Your task to perform on an android device: Search for Mexican restaurants on Maps Image 0: 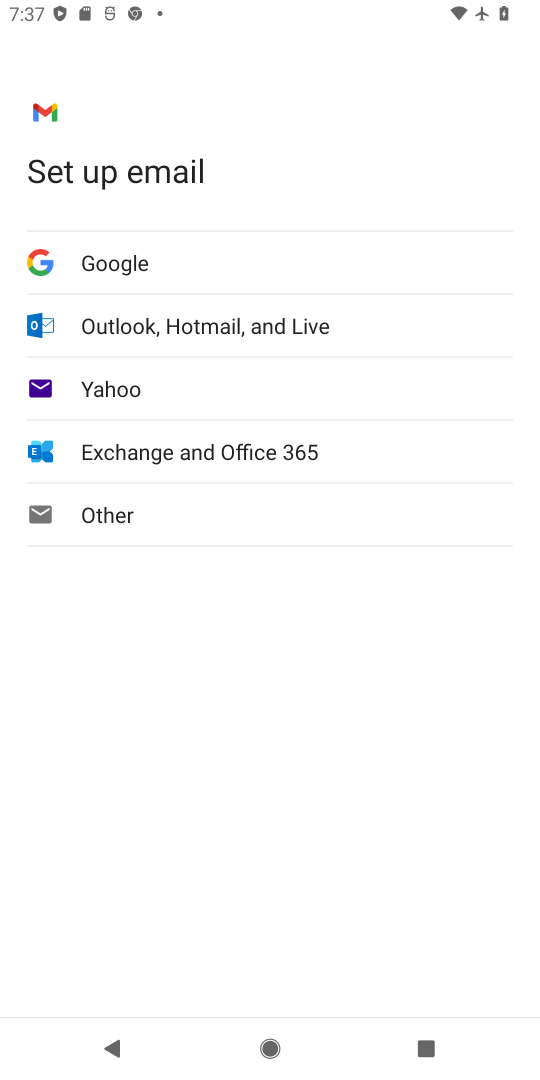
Step 0: press home button
Your task to perform on an android device: Search for Mexican restaurants on Maps Image 1: 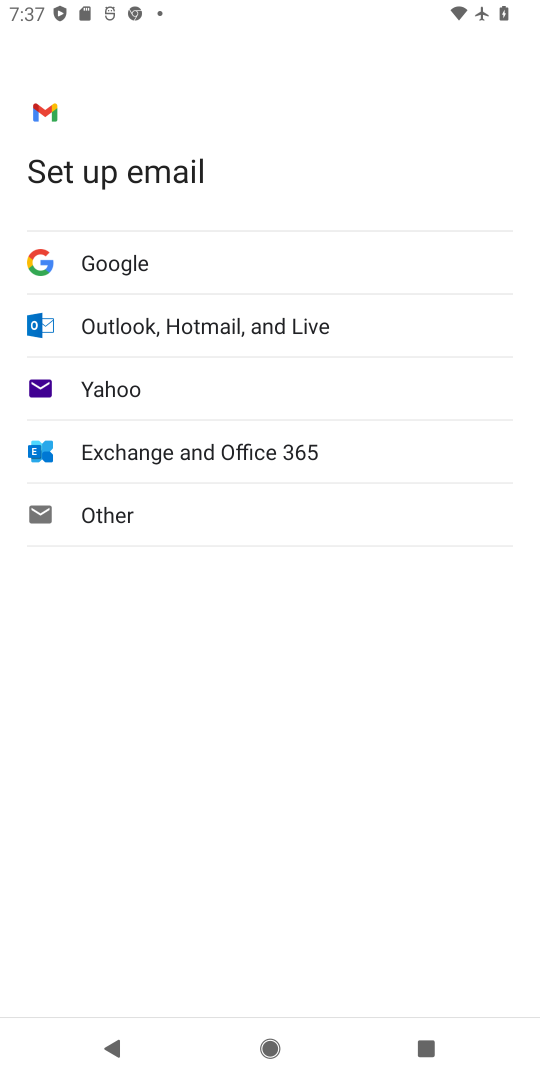
Step 1: press home button
Your task to perform on an android device: Search for Mexican restaurants on Maps Image 2: 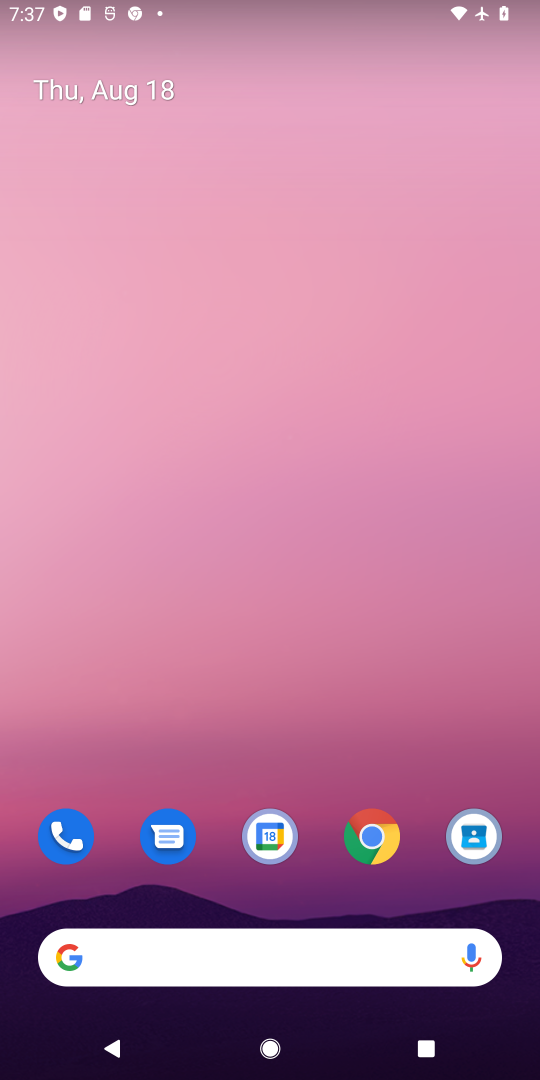
Step 2: drag from (323, 756) to (207, 39)
Your task to perform on an android device: Search for Mexican restaurants on Maps Image 3: 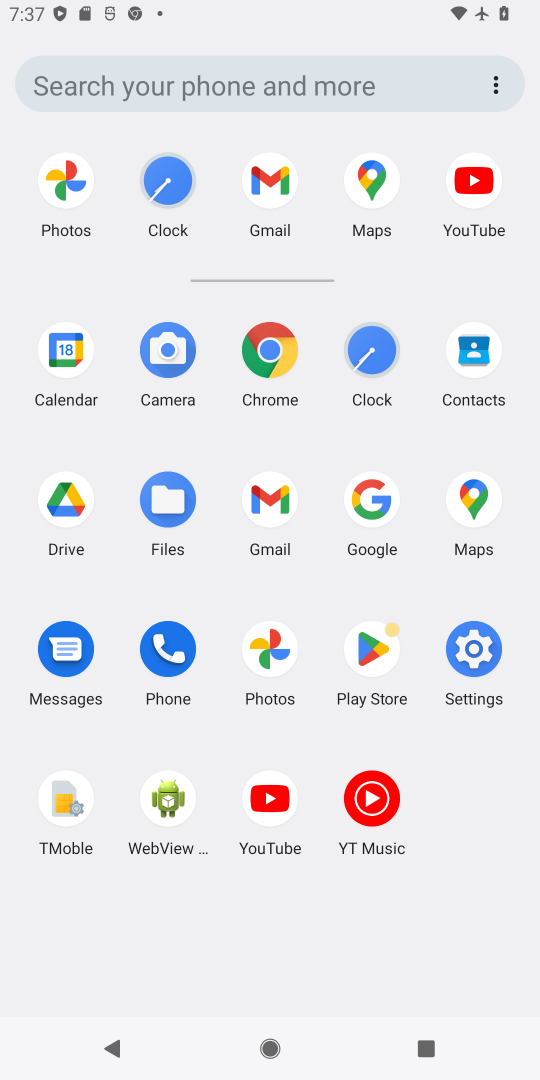
Step 3: click (474, 510)
Your task to perform on an android device: Search for Mexican restaurants on Maps Image 4: 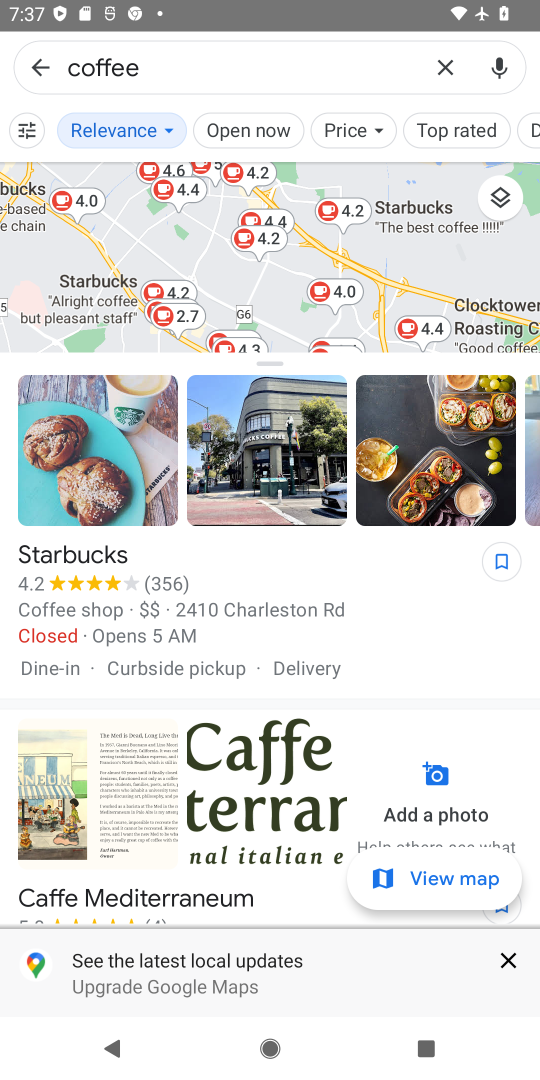
Step 4: click (456, 71)
Your task to perform on an android device: Search for Mexican restaurants on Maps Image 5: 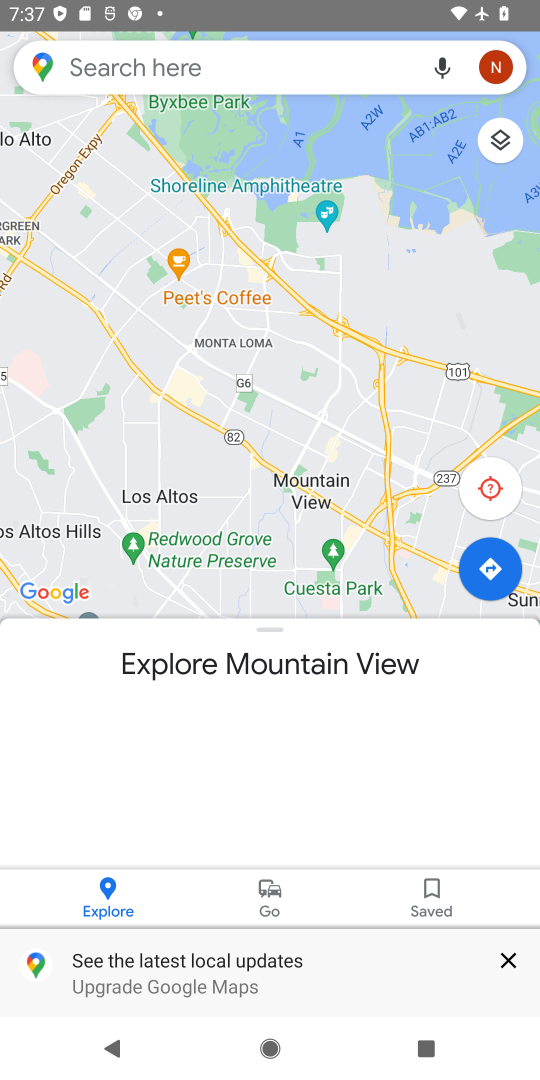
Step 5: click (266, 59)
Your task to perform on an android device: Search for Mexican restaurants on Maps Image 6: 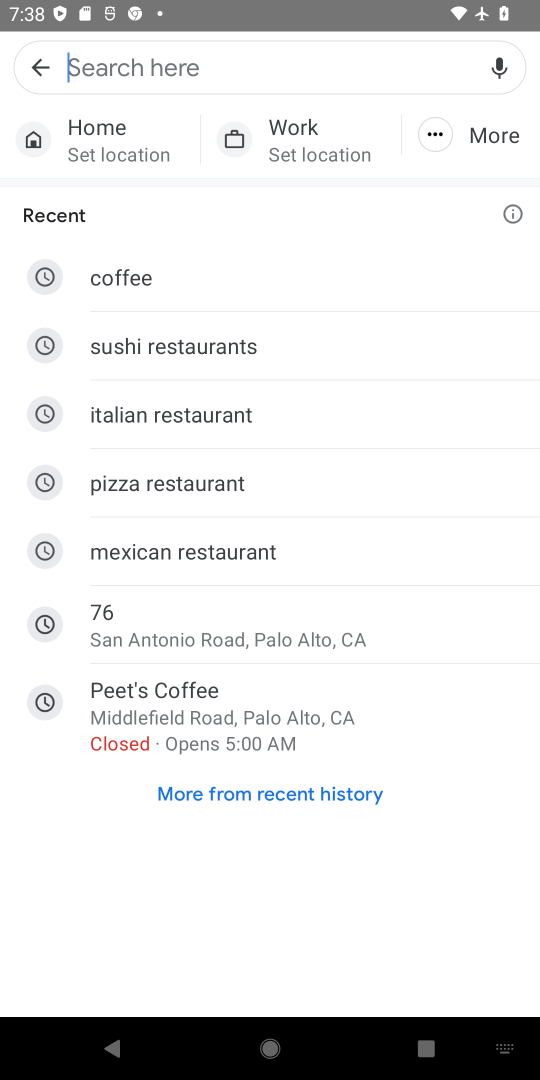
Step 6: type "Mexican restaurants"
Your task to perform on an android device: Search for Mexican restaurants on Maps Image 7: 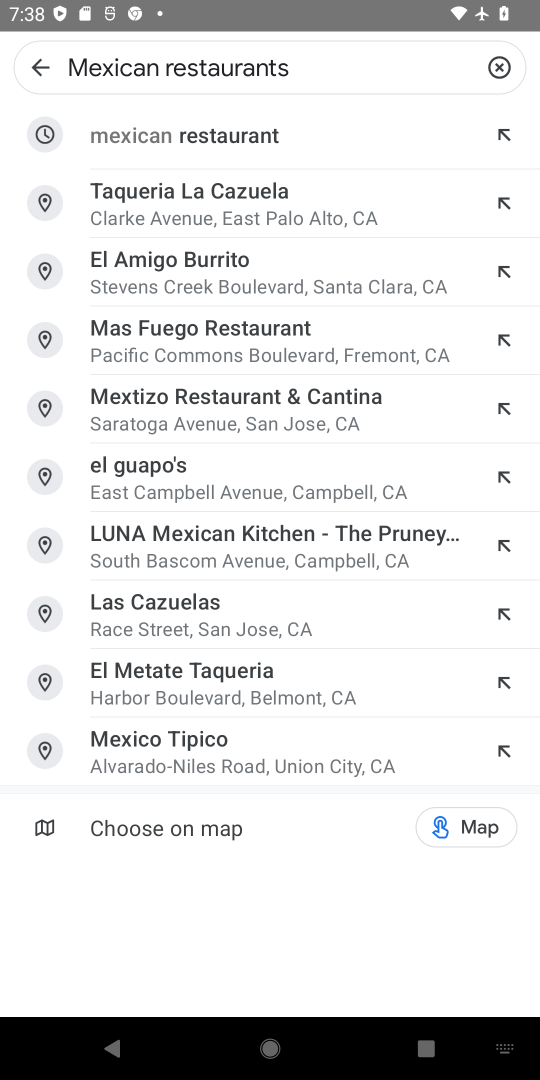
Step 7: press enter
Your task to perform on an android device: Search for Mexican restaurants on Maps Image 8: 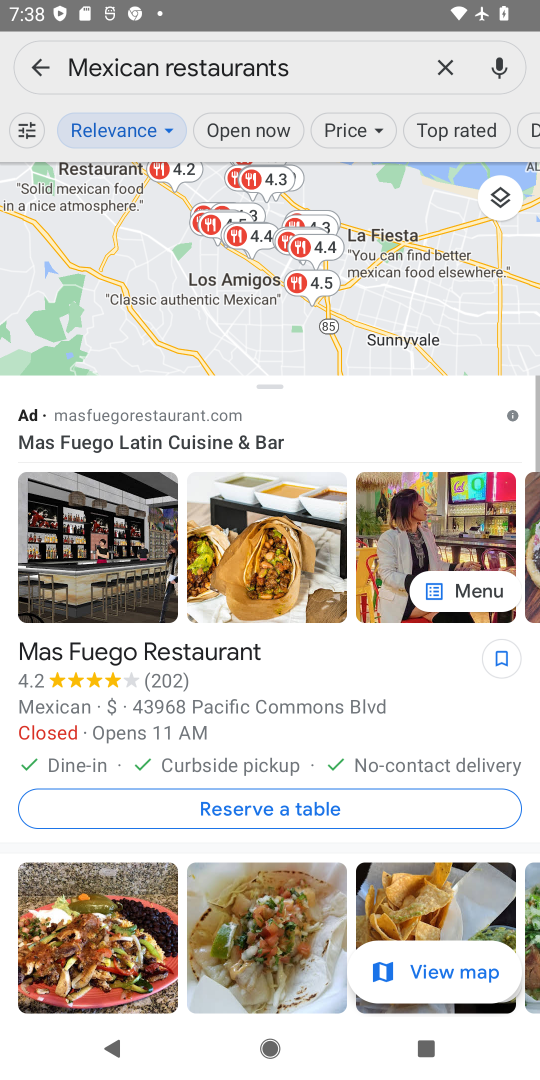
Step 8: task complete